Your task to perform on an android device: Open Google Chrome and click the shortcut for Amazon.com Image 0: 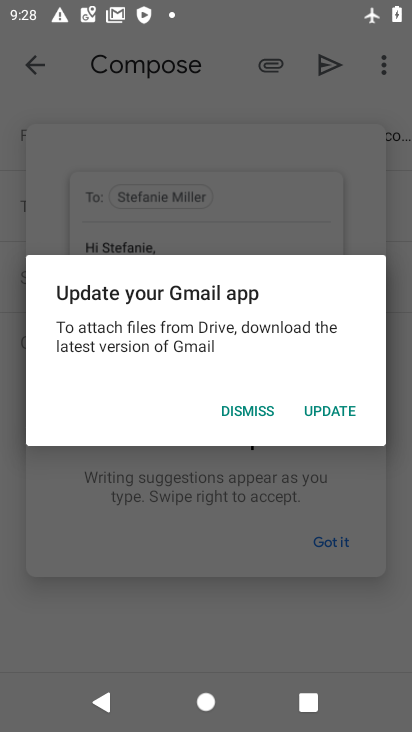
Step 0: press home button
Your task to perform on an android device: Open Google Chrome and click the shortcut for Amazon.com Image 1: 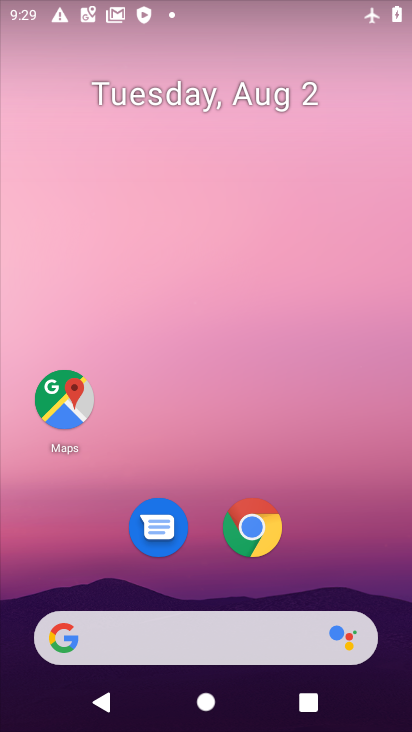
Step 1: click (254, 528)
Your task to perform on an android device: Open Google Chrome and click the shortcut for Amazon.com Image 2: 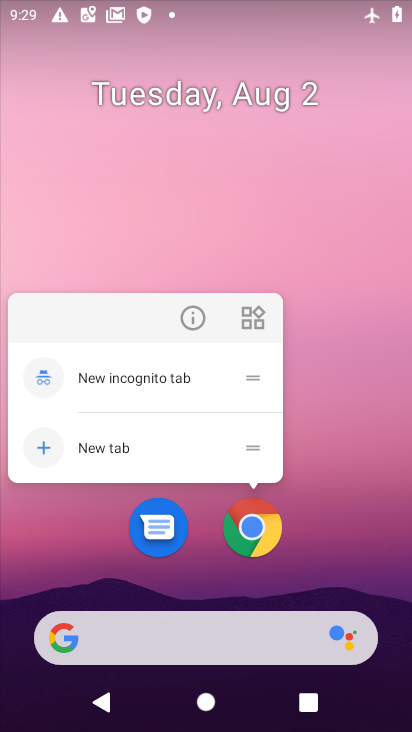
Step 2: click (253, 532)
Your task to perform on an android device: Open Google Chrome and click the shortcut for Amazon.com Image 3: 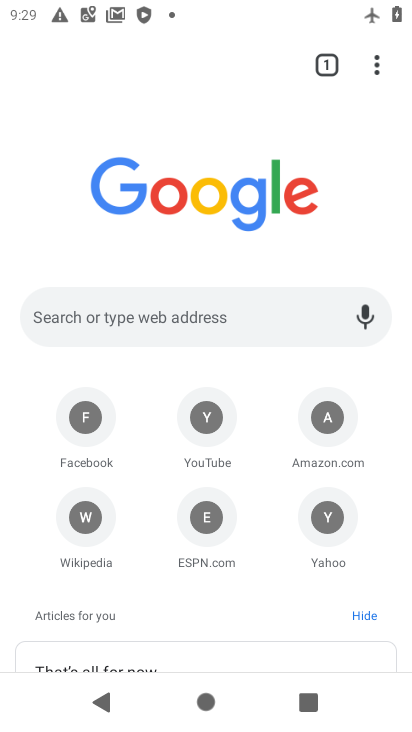
Step 3: click (328, 431)
Your task to perform on an android device: Open Google Chrome and click the shortcut for Amazon.com Image 4: 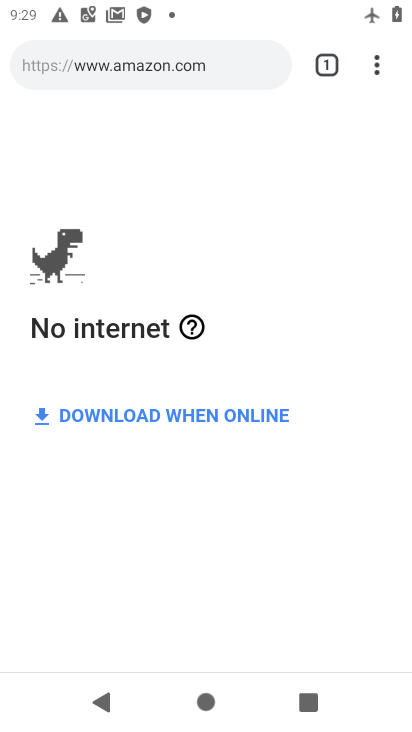
Step 4: task complete